Your task to perform on an android device: Open settings on Google Maps Image 0: 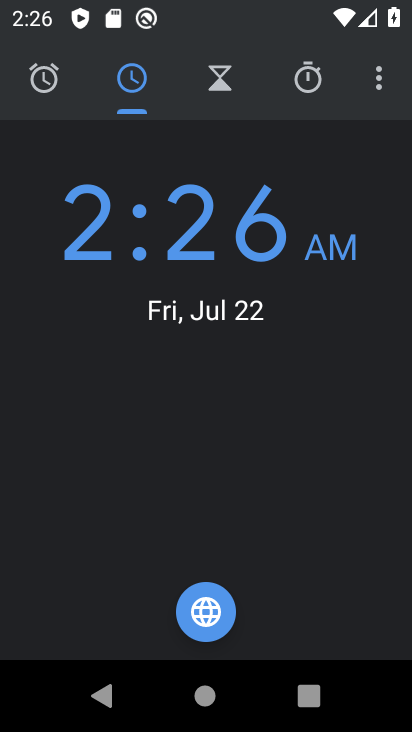
Step 0: press back button
Your task to perform on an android device: Open settings on Google Maps Image 1: 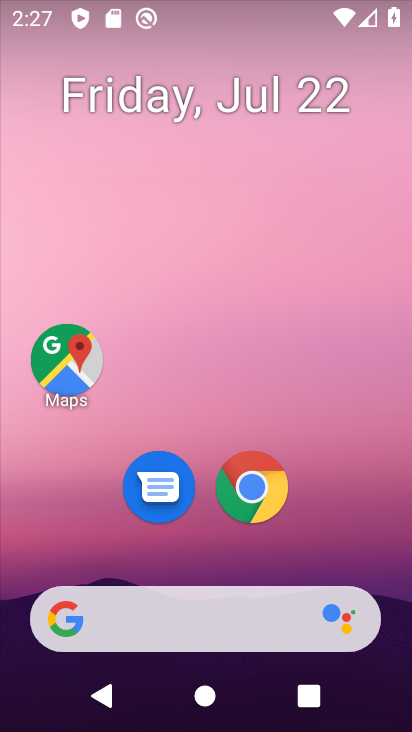
Step 1: click (49, 332)
Your task to perform on an android device: Open settings on Google Maps Image 2: 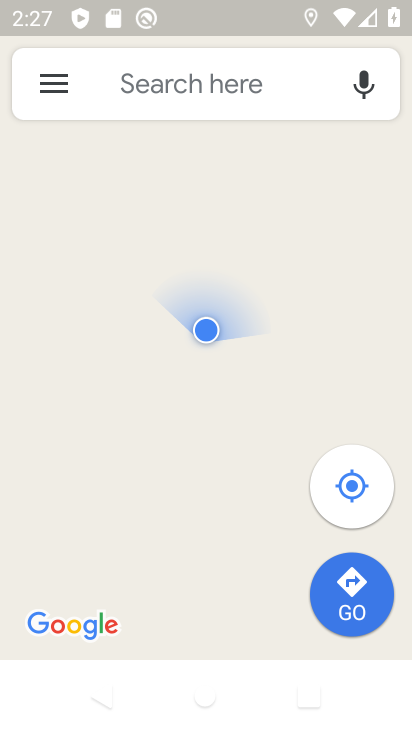
Step 2: click (36, 82)
Your task to perform on an android device: Open settings on Google Maps Image 3: 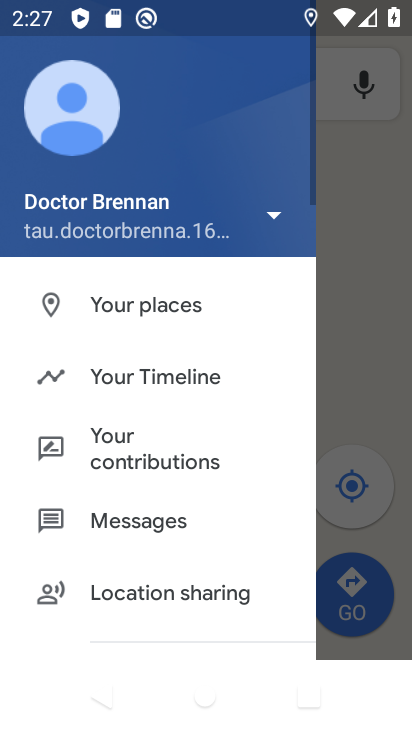
Step 3: drag from (154, 577) to (238, 11)
Your task to perform on an android device: Open settings on Google Maps Image 4: 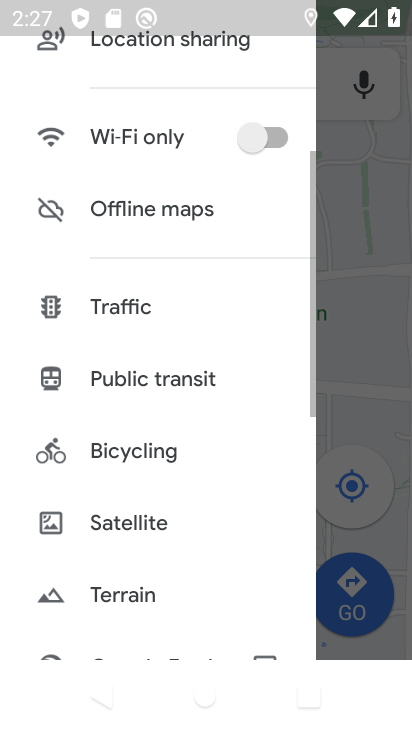
Step 4: drag from (92, 595) to (159, 148)
Your task to perform on an android device: Open settings on Google Maps Image 5: 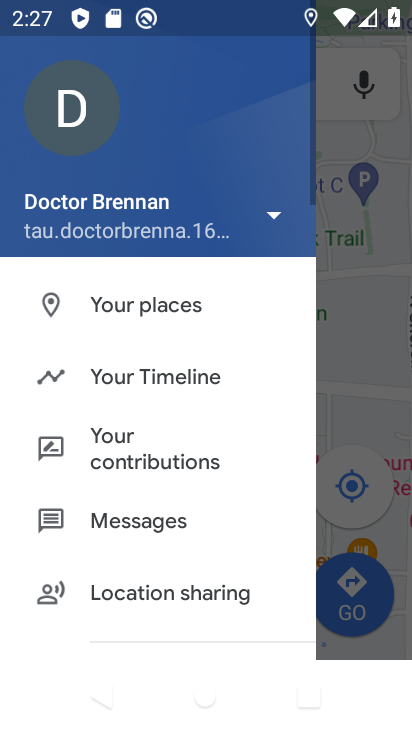
Step 5: drag from (109, 529) to (175, 49)
Your task to perform on an android device: Open settings on Google Maps Image 6: 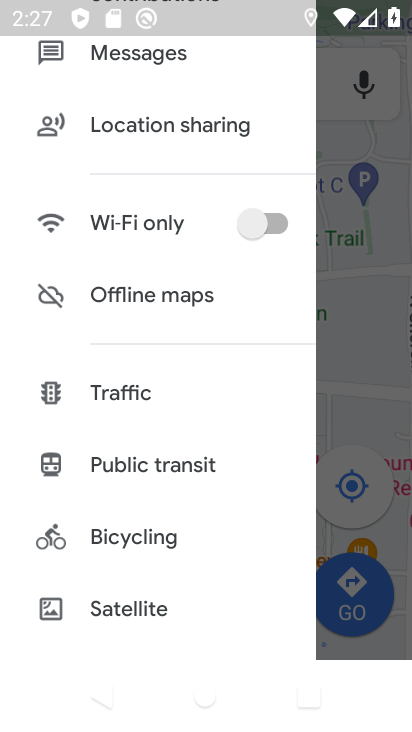
Step 6: drag from (124, 553) to (231, 18)
Your task to perform on an android device: Open settings on Google Maps Image 7: 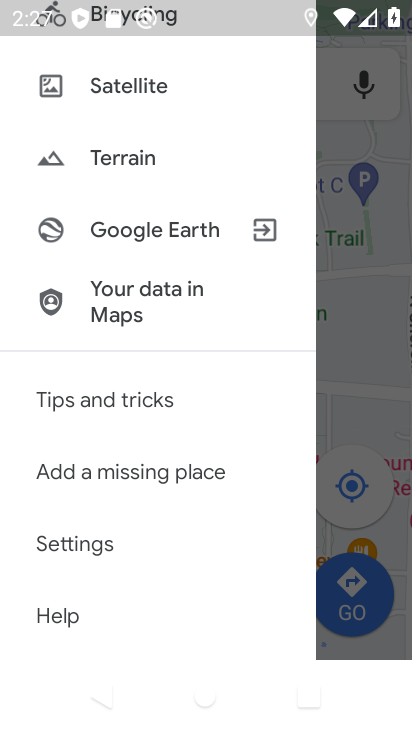
Step 7: click (95, 546)
Your task to perform on an android device: Open settings on Google Maps Image 8: 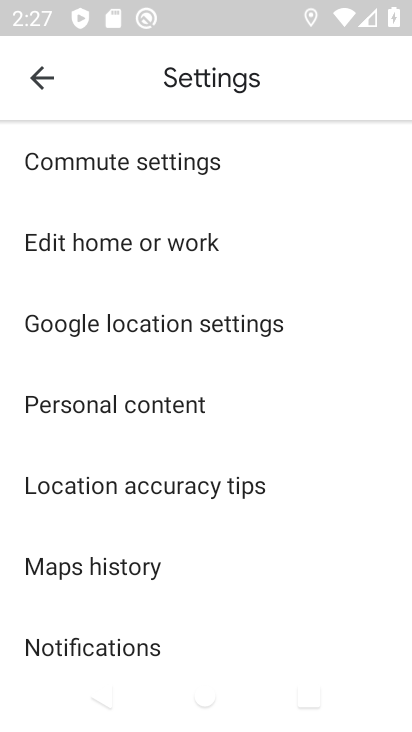
Step 8: task complete